Your task to perform on an android device: toggle sleep mode Image 0: 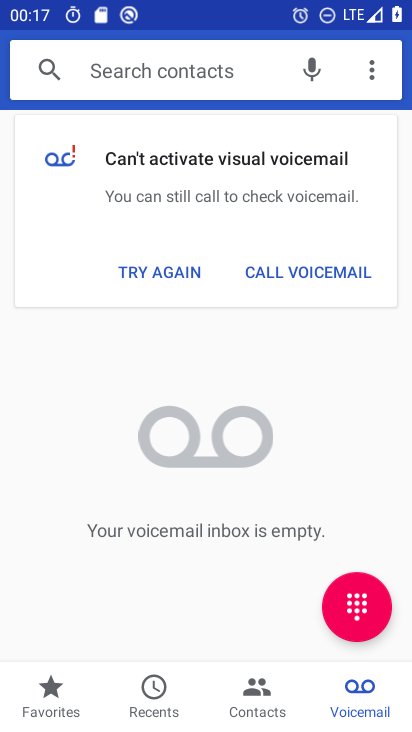
Step 0: press home button
Your task to perform on an android device: toggle sleep mode Image 1: 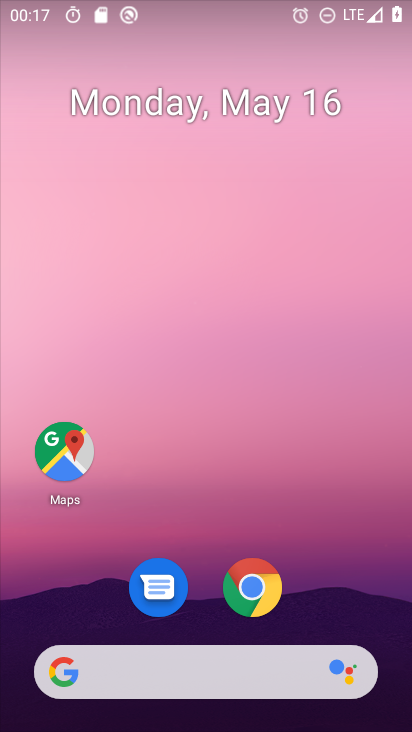
Step 1: drag from (199, 605) to (198, 220)
Your task to perform on an android device: toggle sleep mode Image 2: 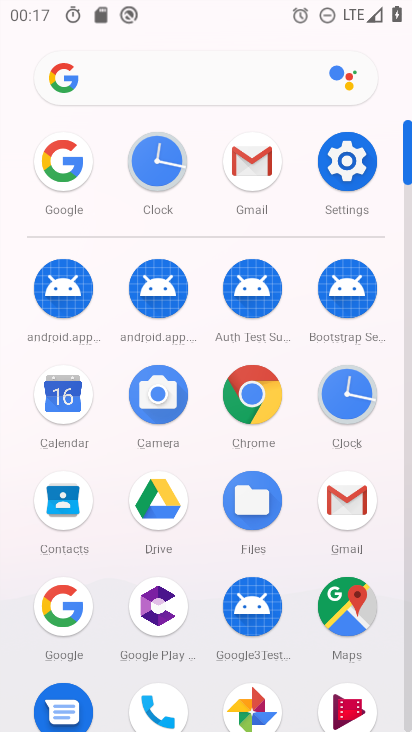
Step 2: click (356, 158)
Your task to perform on an android device: toggle sleep mode Image 3: 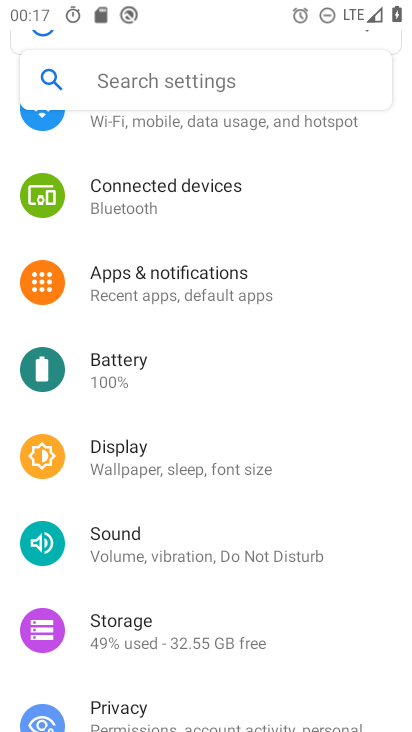
Step 3: drag from (186, 258) to (198, 549)
Your task to perform on an android device: toggle sleep mode Image 4: 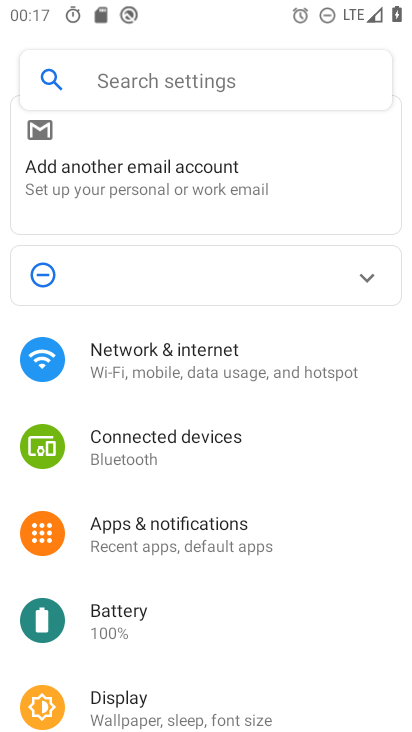
Step 4: drag from (176, 302) to (203, 524)
Your task to perform on an android device: toggle sleep mode Image 5: 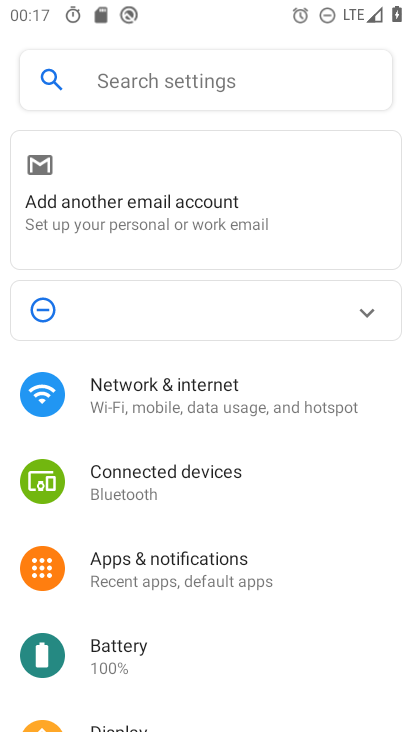
Step 5: drag from (224, 604) to (237, 383)
Your task to perform on an android device: toggle sleep mode Image 6: 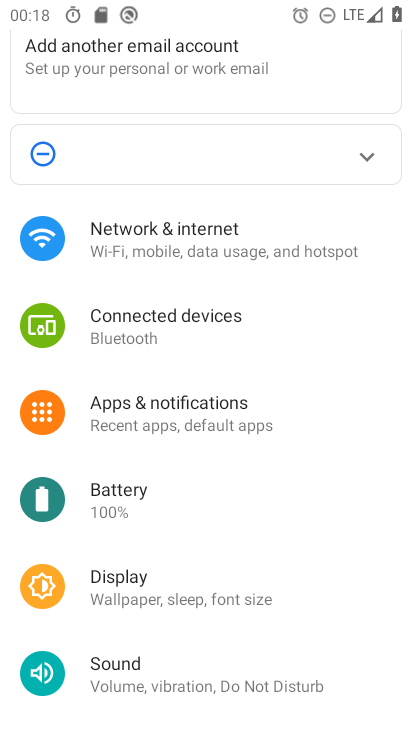
Step 6: drag from (197, 582) to (216, 441)
Your task to perform on an android device: toggle sleep mode Image 7: 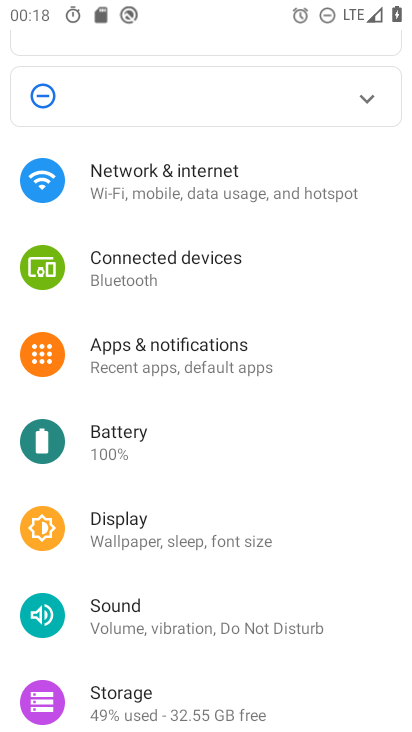
Step 7: click (219, 540)
Your task to perform on an android device: toggle sleep mode Image 8: 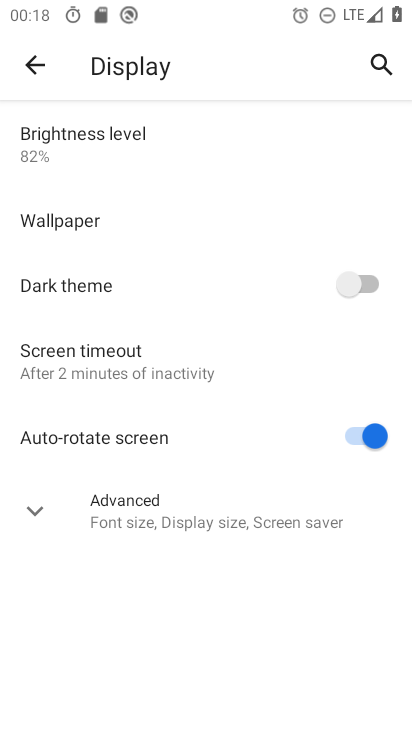
Step 8: click (125, 353)
Your task to perform on an android device: toggle sleep mode Image 9: 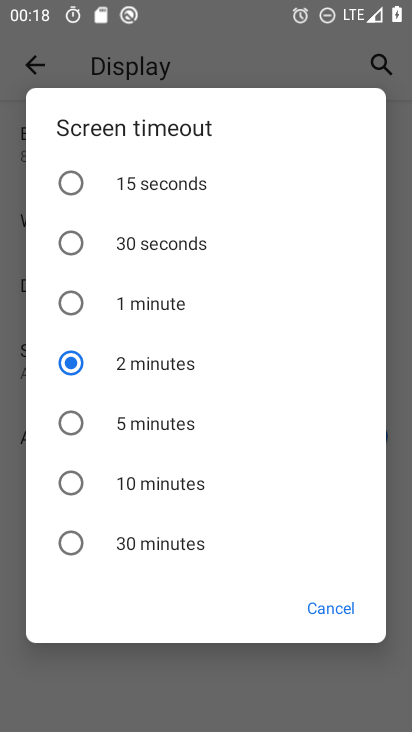
Step 9: click (151, 473)
Your task to perform on an android device: toggle sleep mode Image 10: 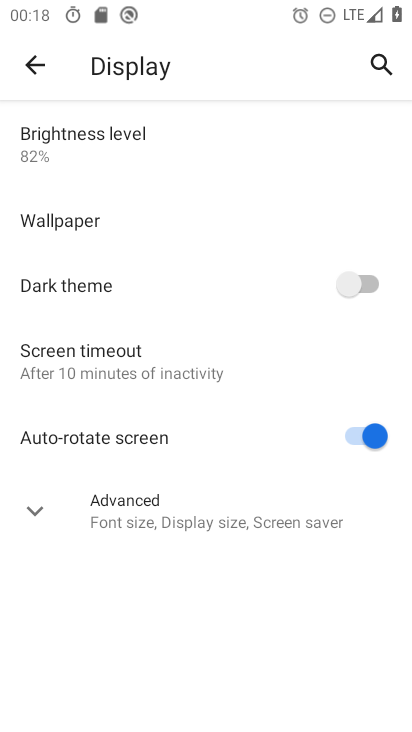
Step 10: task complete